Your task to perform on an android device: uninstall "Clock" Image 0: 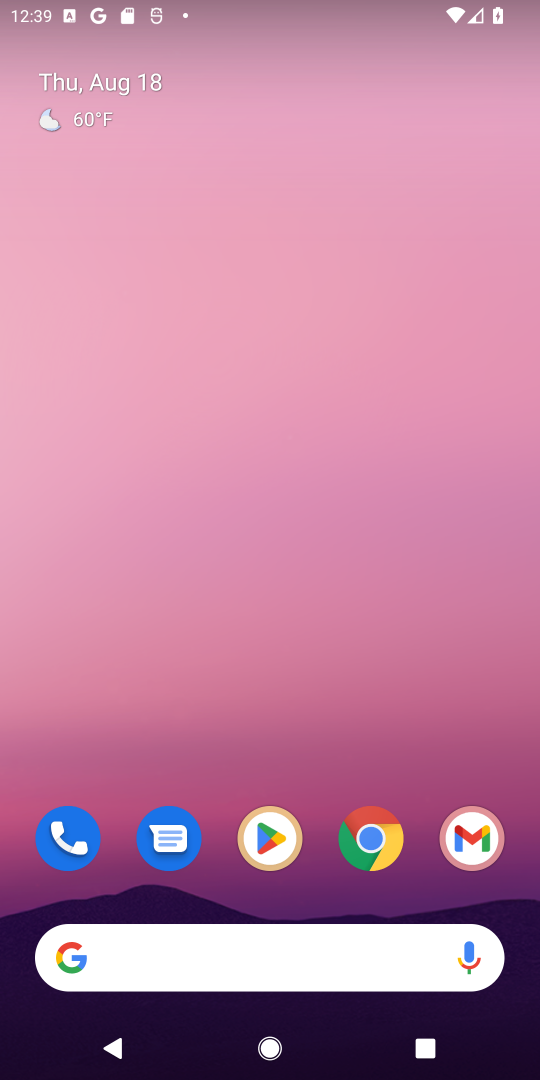
Step 0: click (265, 834)
Your task to perform on an android device: uninstall "Clock" Image 1: 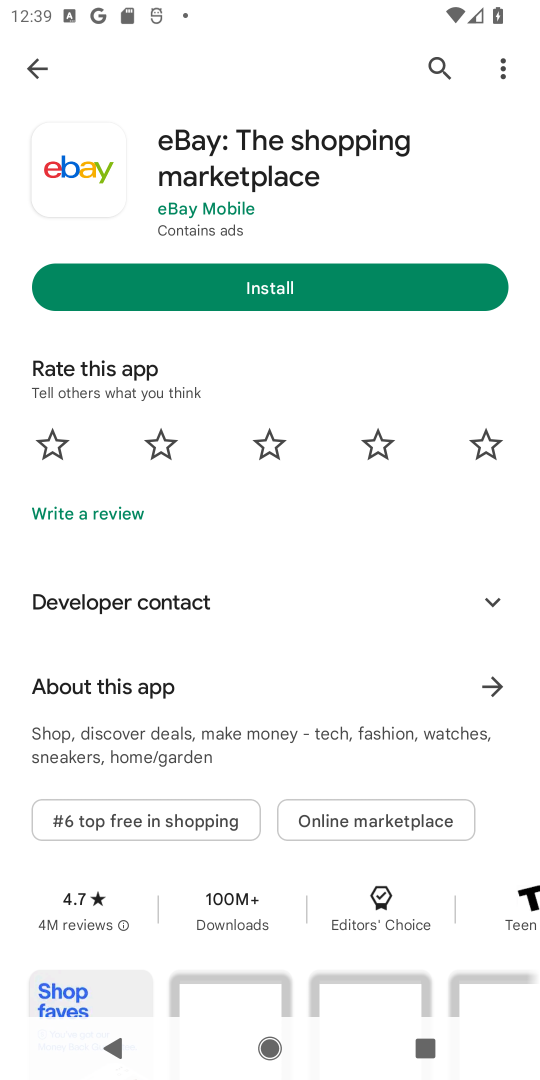
Step 1: click (430, 68)
Your task to perform on an android device: uninstall "Clock" Image 2: 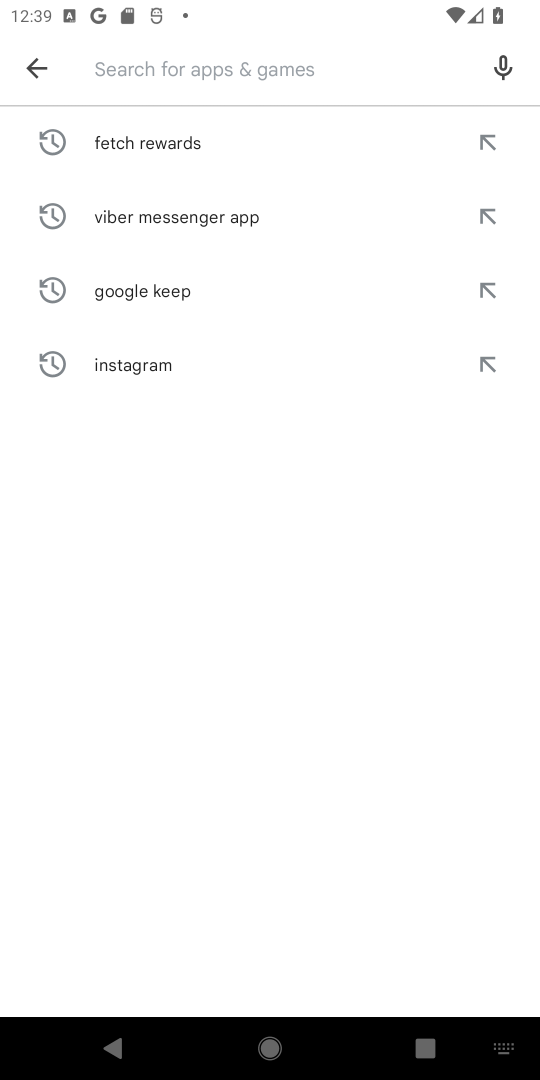
Step 2: type "Clock"
Your task to perform on an android device: uninstall "Clock" Image 3: 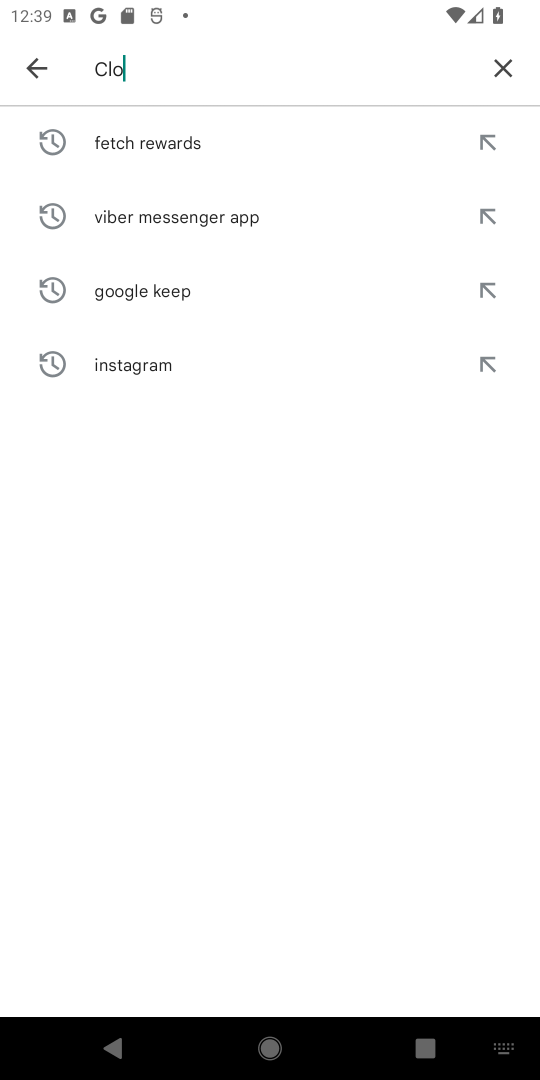
Step 3: type ""
Your task to perform on an android device: uninstall "Clock" Image 4: 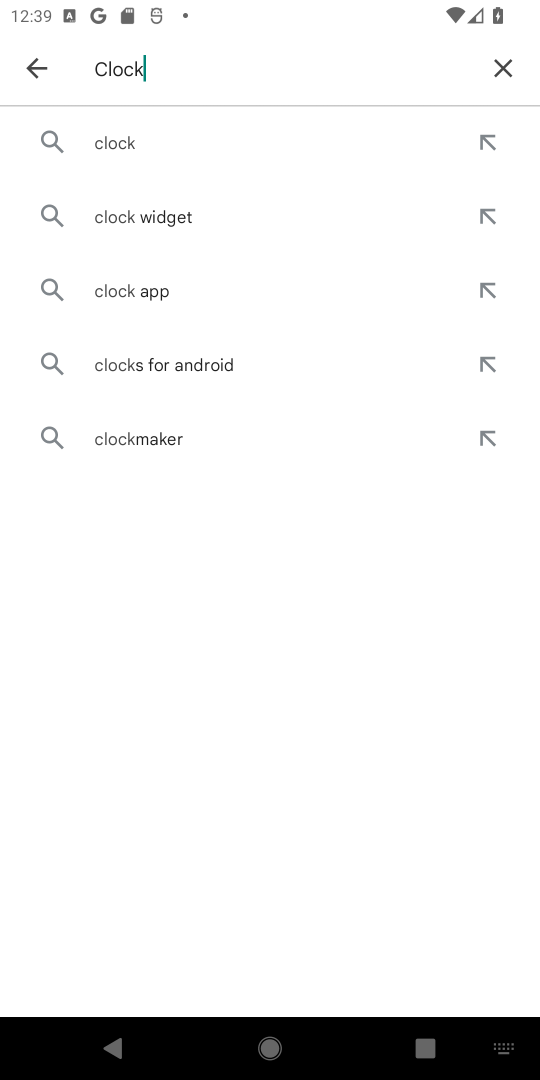
Step 4: click (113, 128)
Your task to perform on an android device: uninstall "Clock" Image 5: 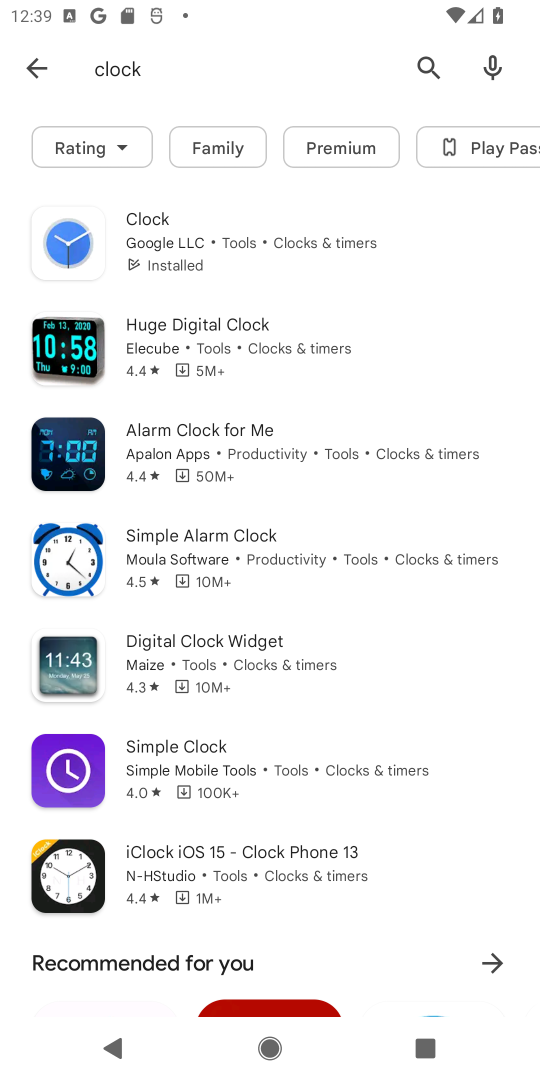
Step 5: click (276, 223)
Your task to perform on an android device: uninstall "Clock" Image 6: 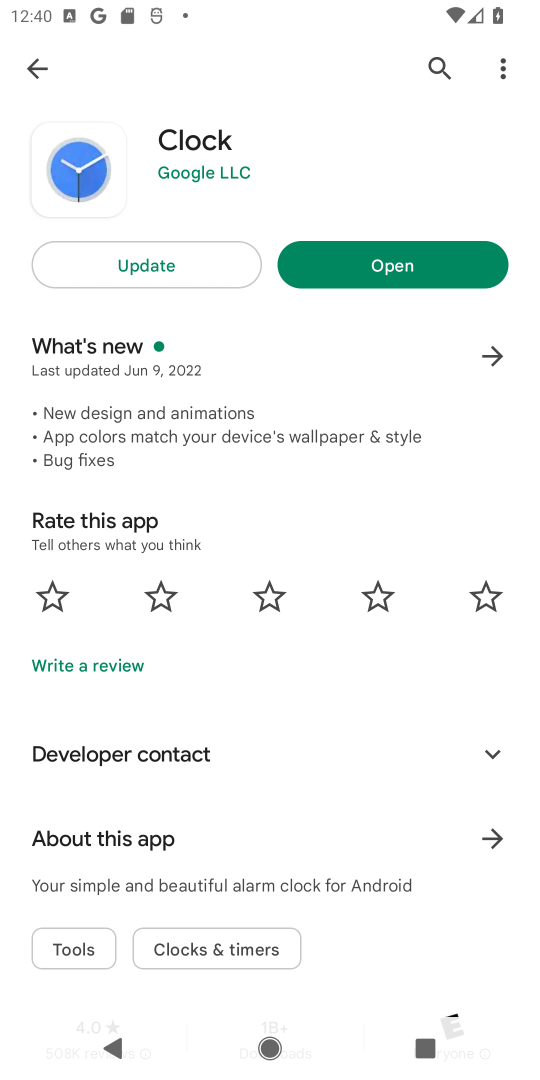
Step 6: click (198, 269)
Your task to perform on an android device: uninstall "Clock" Image 7: 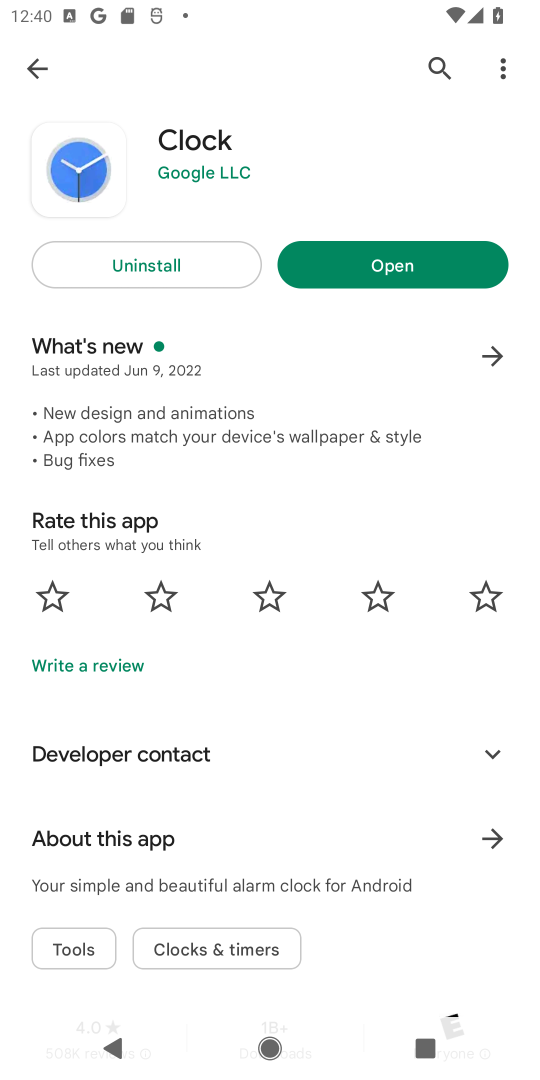
Step 7: click (203, 281)
Your task to perform on an android device: uninstall "Clock" Image 8: 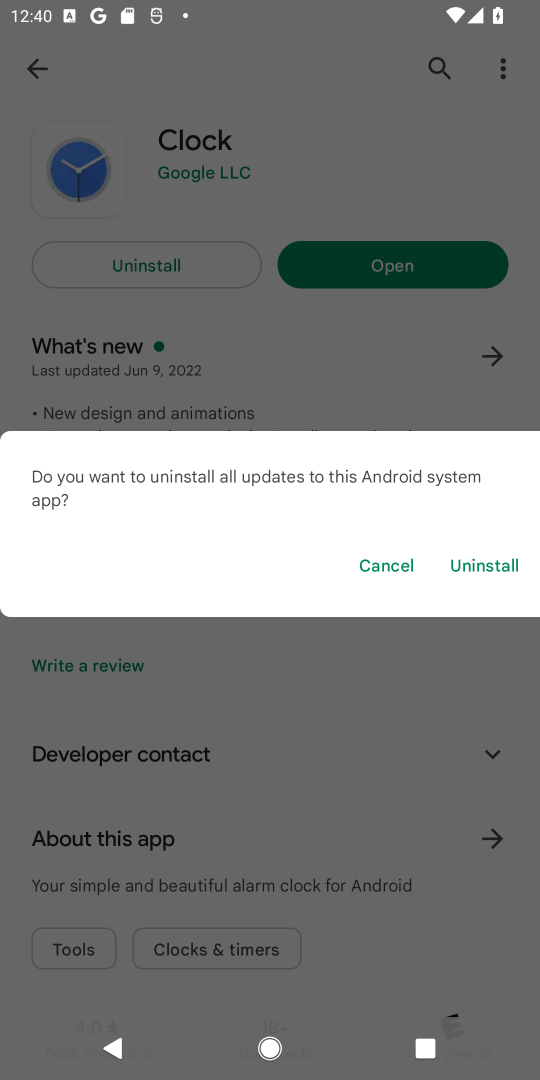
Step 8: click (495, 556)
Your task to perform on an android device: uninstall "Clock" Image 9: 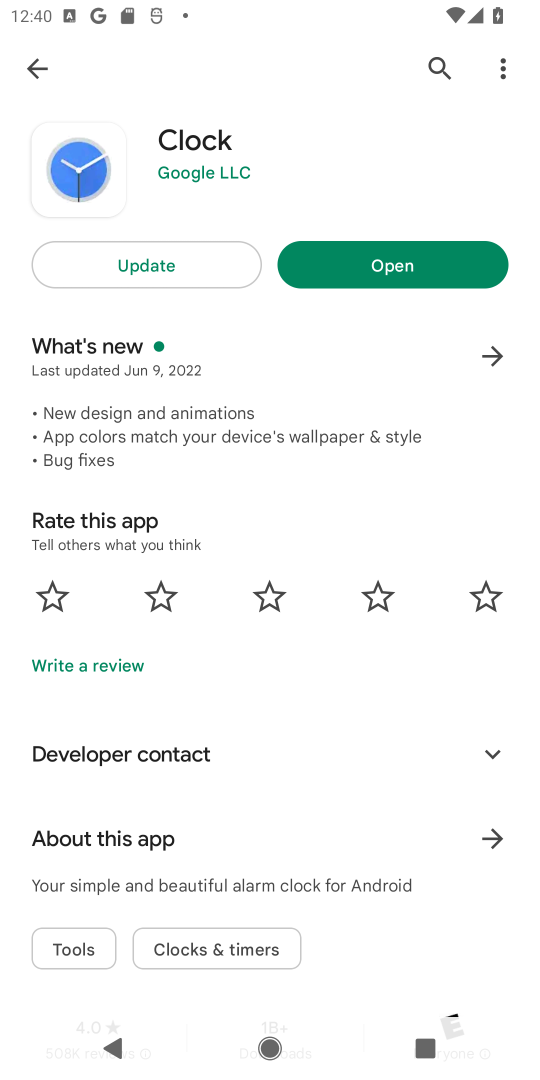
Step 9: task complete